Your task to perform on an android device: Open Google Chrome and click the shortcut for Amazon.com Image 0: 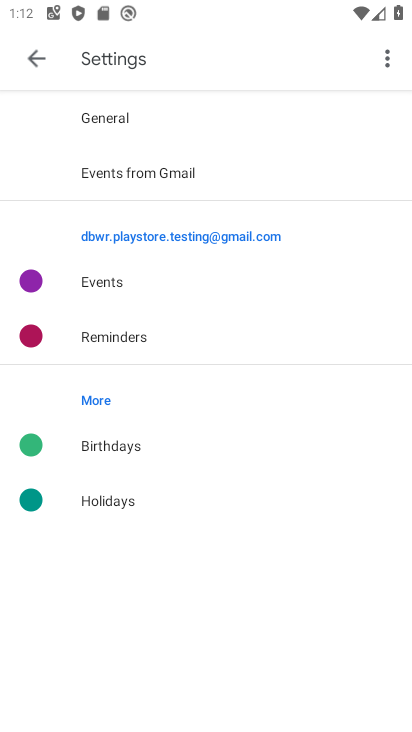
Step 0: press home button
Your task to perform on an android device: Open Google Chrome and click the shortcut for Amazon.com Image 1: 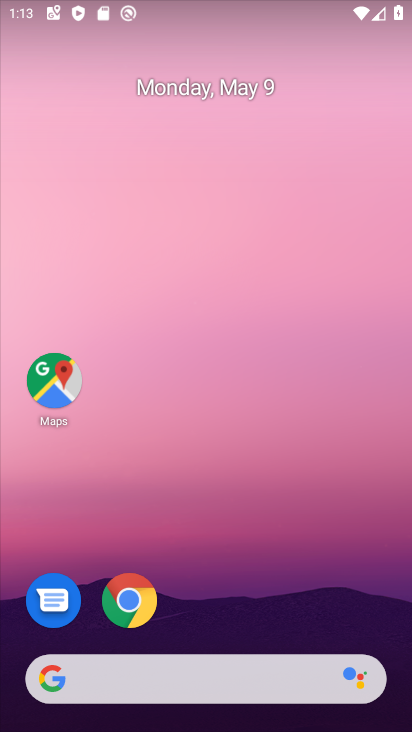
Step 1: click (129, 601)
Your task to perform on an android device: Open Google Chrome and click the shortcut for Amazon.com Image 2: 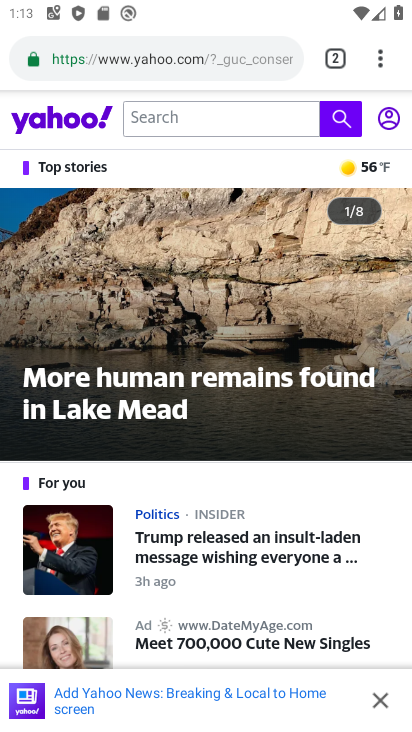
Step 2: click (331, 64)
Your task to perform on an android device: Open Google Chrome and click the shortcut for Amazon.com Image 3: 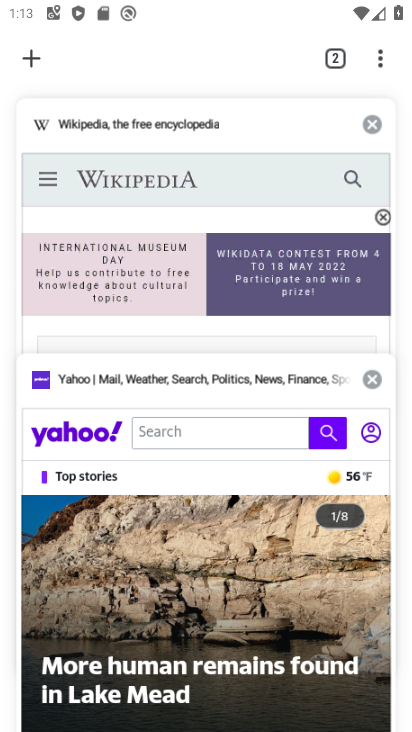
Step 3: click (25, 54)
Your task to perform on an android device: Open Google Chrome and click the shortcut for Amazon.com Image 4: 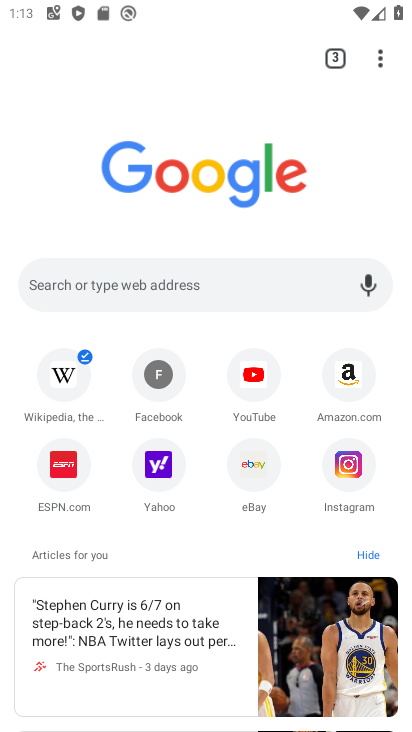
Step 4: click (351, 368)
Your task to perform on an android device: Open Google Chrome and click the shortcut for Amazon.com Image 5: 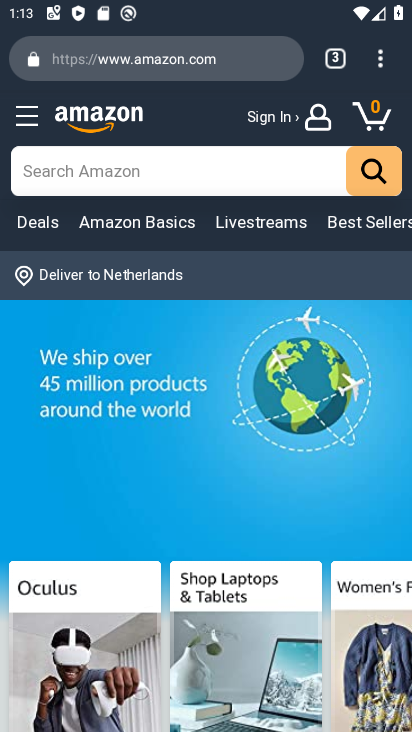
Step 5: task complete